Your task to perform on an android device: Open wifi settings Image 0: 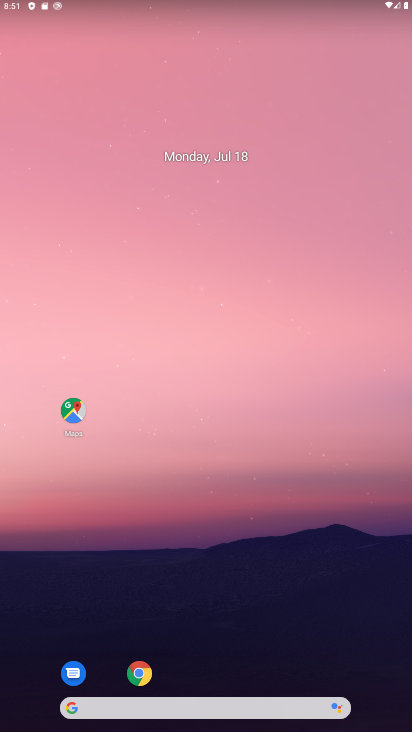
Step 0: press home button
Your task to perform on an android device: Open wifi settings Image 1: 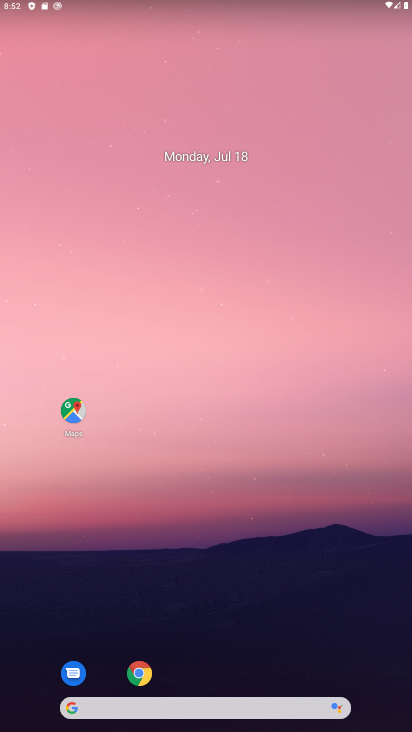
Step 1: drag from (245, 656) to (251, 14)
Your task to perform on an android device: Open wifi settings Image 2: 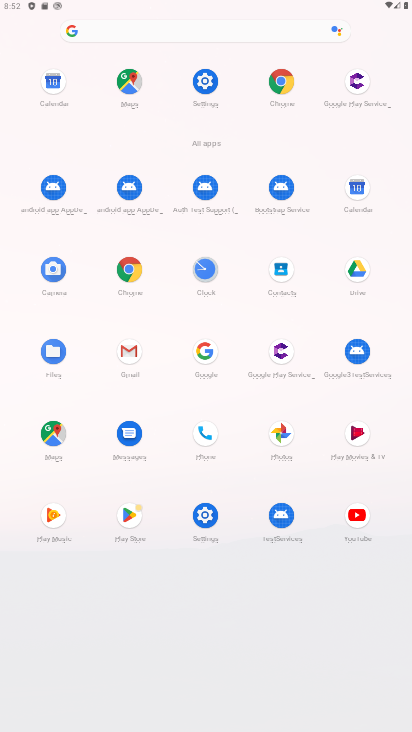
Step 2: click (201, 84)
Your task to perform on an android device: Open wifi settings Image 3: 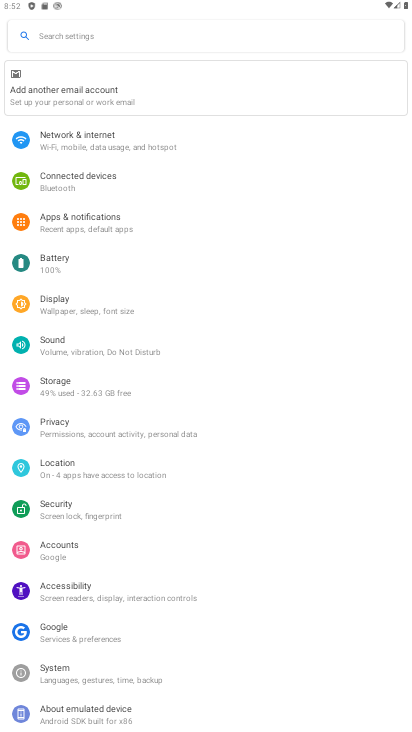
Step 3: click (92, 143)
Your task to perform on an android device: Open wifi settings Image 4: 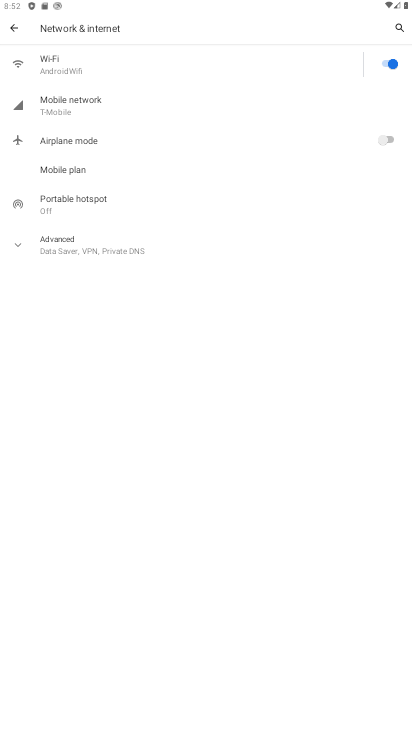
Step 4: click (57, 54)
Your task to perform on an android device: Open wifi settings Image 5: 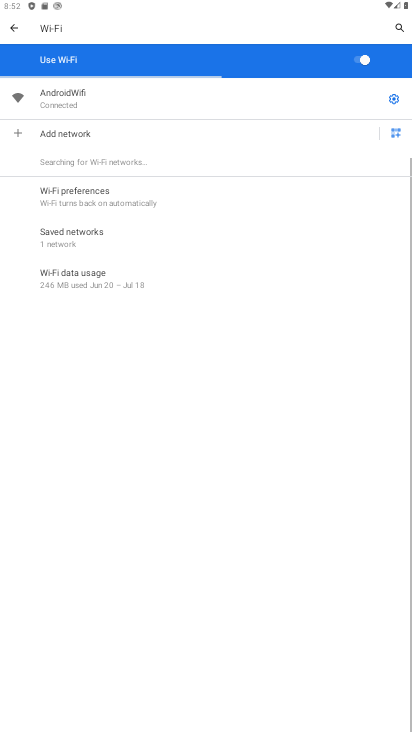
Step 5: task complete